Your task to perform on an android device: check android version Image 0: 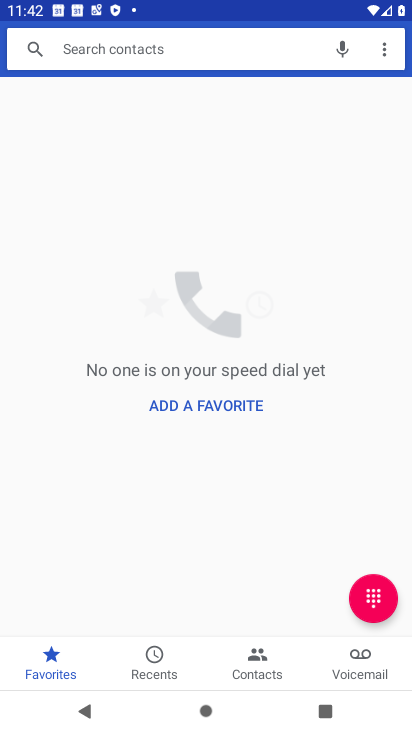
Step 0: press home button
Your task to perform on an android device: check android version Image 1: 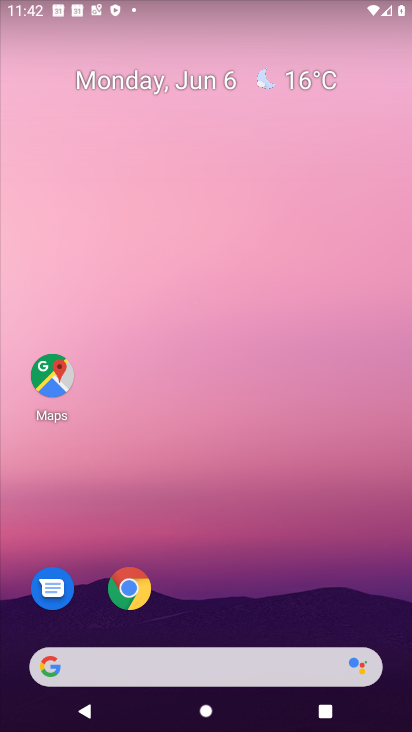
Step 1: drag from (199, 635) to (236, 52)
Your task to perform on an android device: check android version Image 2: 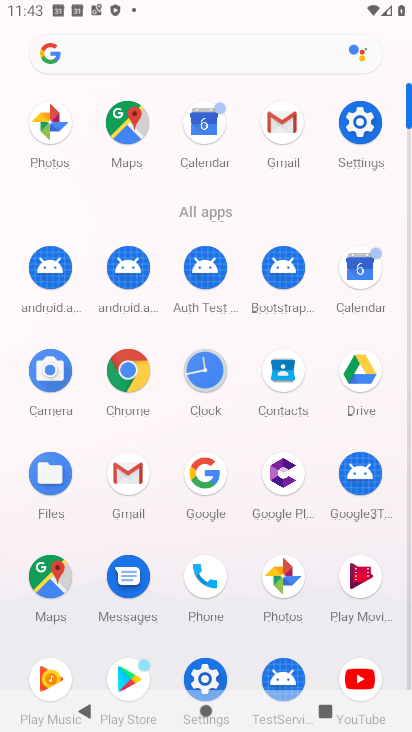
Step 2: click (350, 140)
Your task to perform on an android device: check android version Image 3: 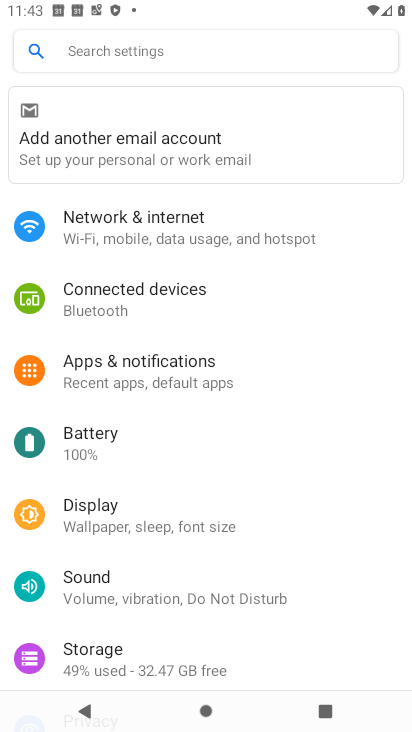
Step 3: drag from (303, 544) to (275, 13)
Your task to perform on an android device: check android version Image 4: 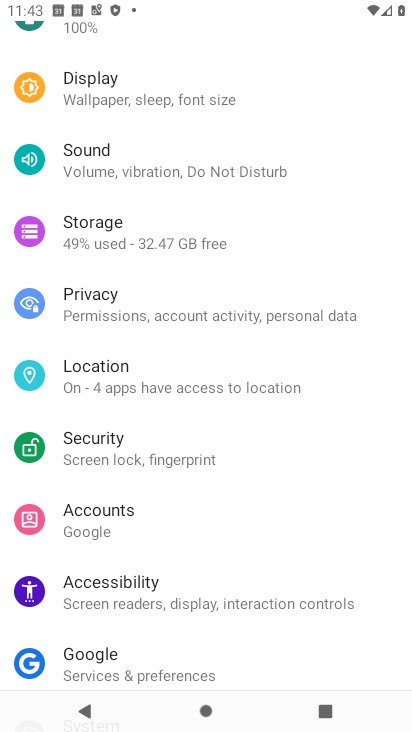
Step 4: drag from (213, 466) to (202, 57)
Your task to perform on an android device: check android version Image 5: 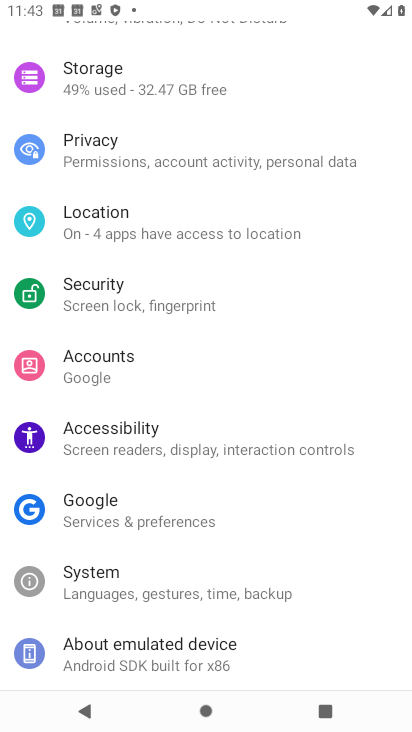
Step 5: click (116, 662)
Your task to perform on an android device: check android version Image 6: 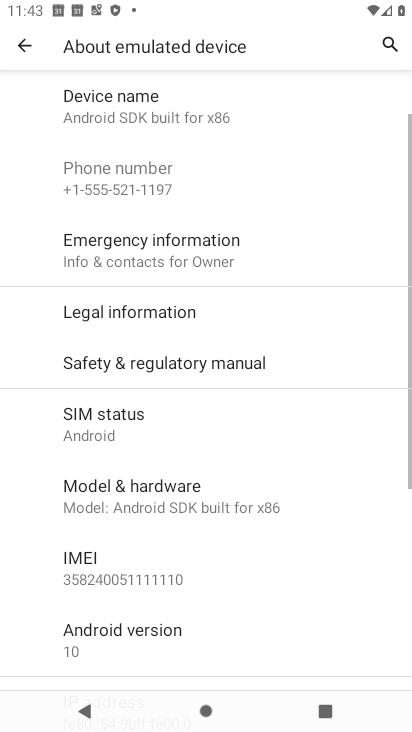
Step 6: click (116, 662)
Your task to perform on an android device: check android version Image 7: 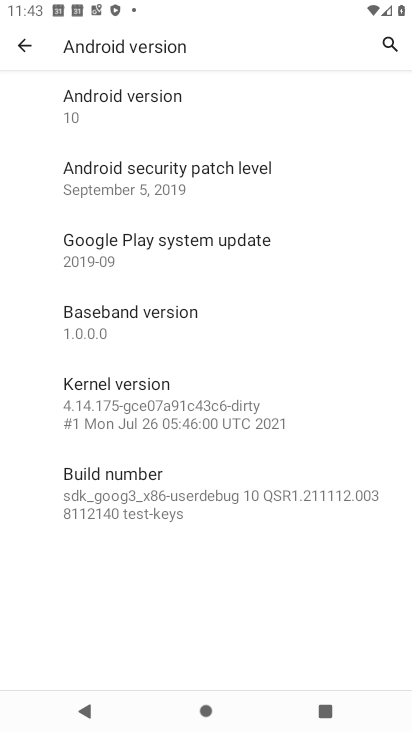
Step 7: click (96, 99)
Your task to perform on an android device: check android version Image 8: 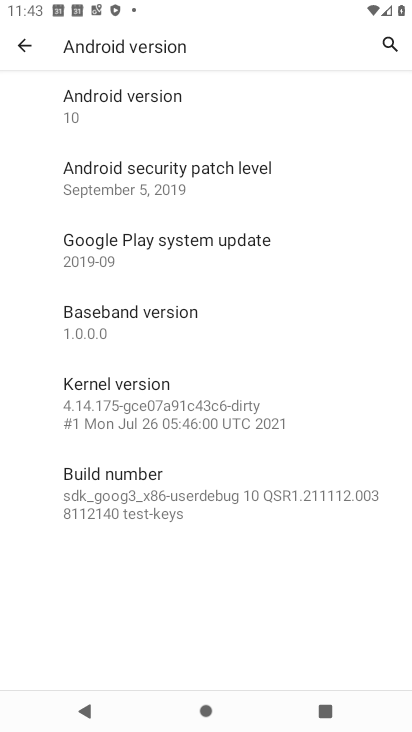
Step 8: task complete